Your task to perform on an android device: Is it going to rain today? Image 0: 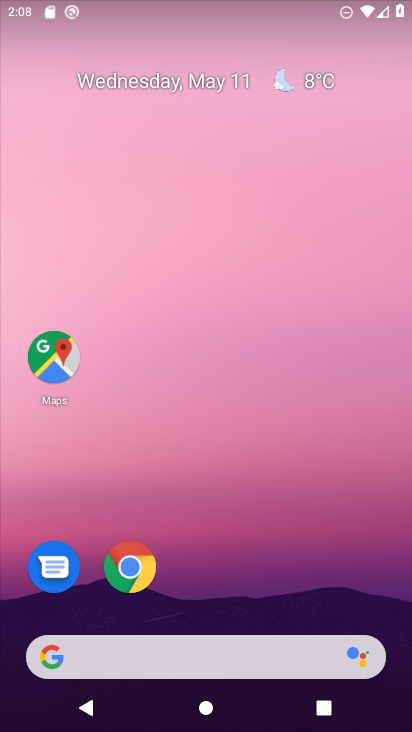
Step 0: click (311, 87)
Your task to perform on an android device: Is it going to rain today? Image 1: 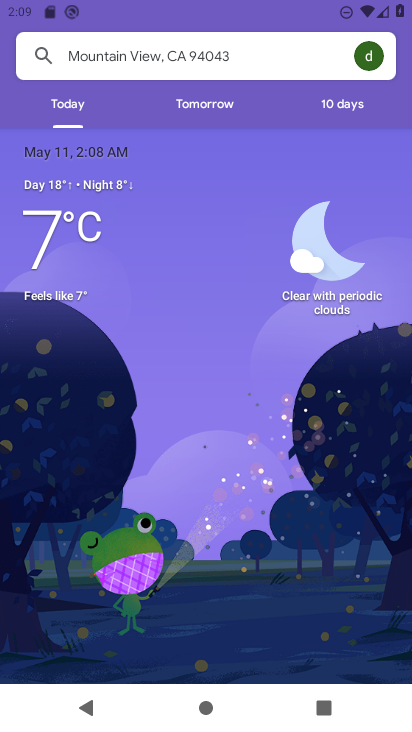
Step 1: task complete